Your task to perform on an android device: Search for seafood restaurants on Google Maps Image 0: 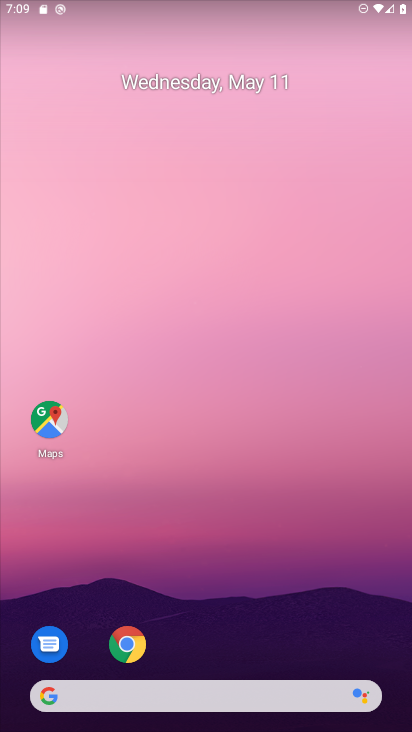
Step 0: click (49, 415)
Your task to perform on an android device: Search for seafood restaurants on Google Maps Image 1: 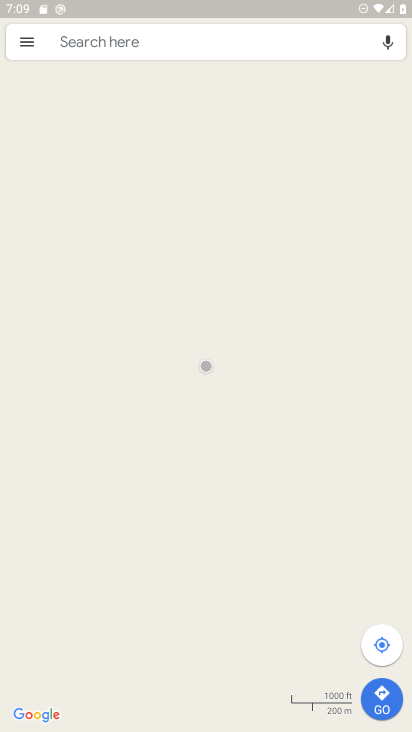
Step 1: click (147, 40)
Your task to perform on an android device: Search for seafood restaurants on Google Maps Image 2: 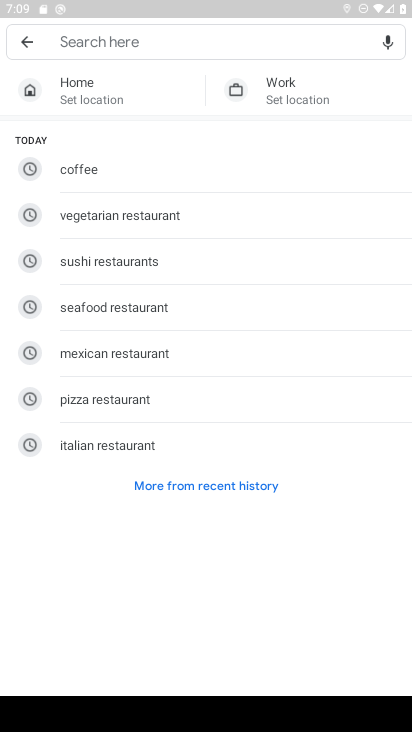
Step 2: type "seafood restaurants"
Your task to perform on an android device: Search for seafood restaurants on Google Maps Image 3: 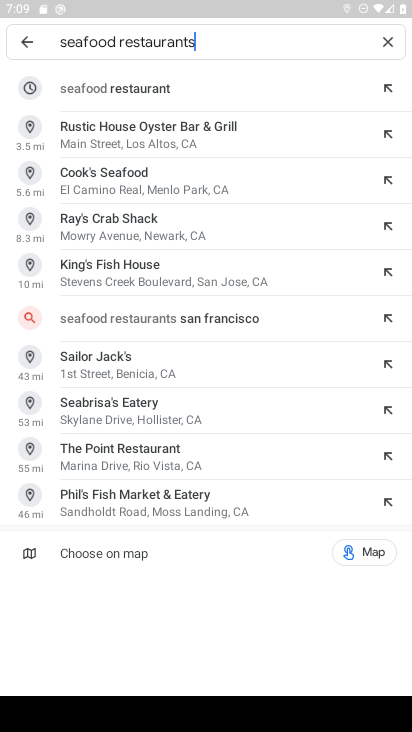
Step 3: click (132, 84)
Your task to perform on an android device: Search for seafood restaurants on Google Maps Image 4: 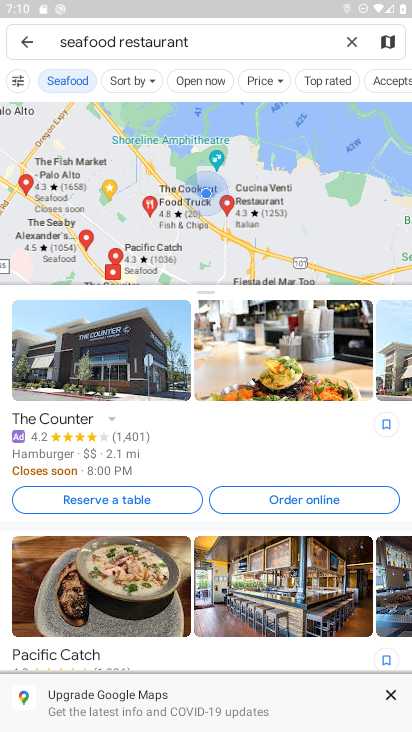
Step 4: task complete